Your task to perform on an android device: Set the phone to "Do not disturb". Image 0: 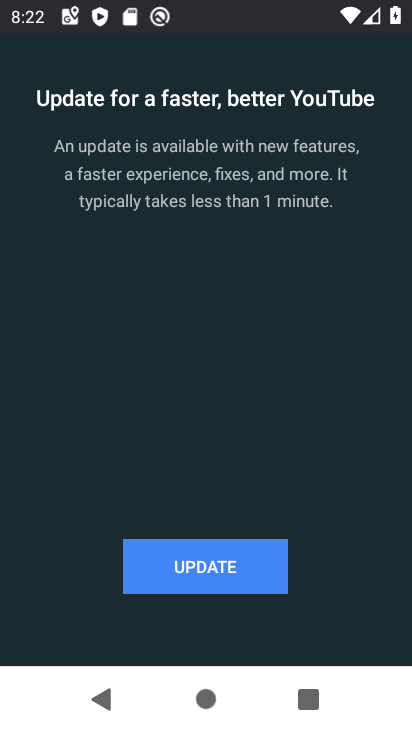
Step 0: press home button
Your task to perform on an android device: Set the phone to "Do not disturb". Image 1: 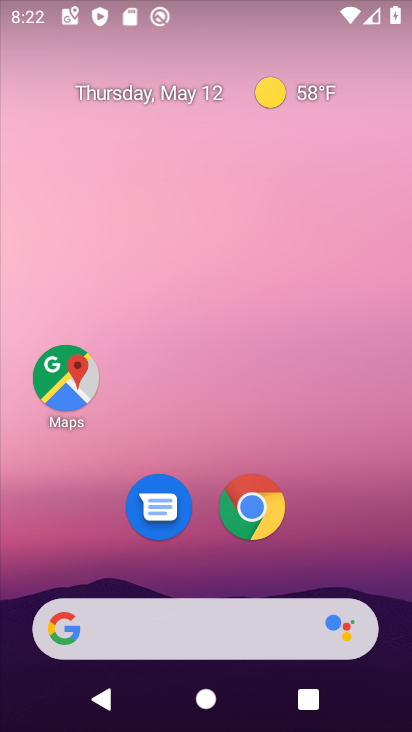
Step 1: drag from (213, 572) to (222, 260)
Your task to perform on an android device: Set the phone to "Do not disturb". Image 2: 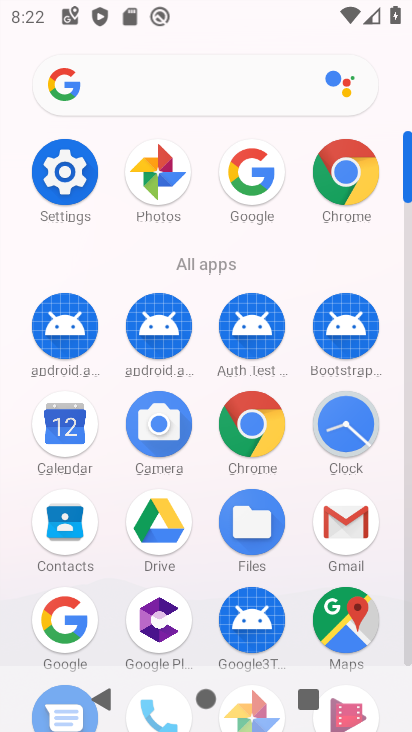
Step 2: click (54, 183)
Your task to perform on an android device: Set the phone to "Do not disturb". Image 3: 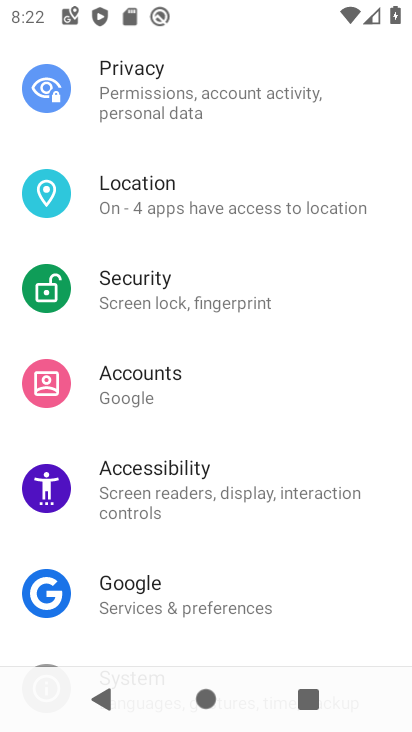
Step 3: drag from (245, 550) to (254, 594)
Your task to perform on an android device: Set the phone to "Do not disturb". Image 4: 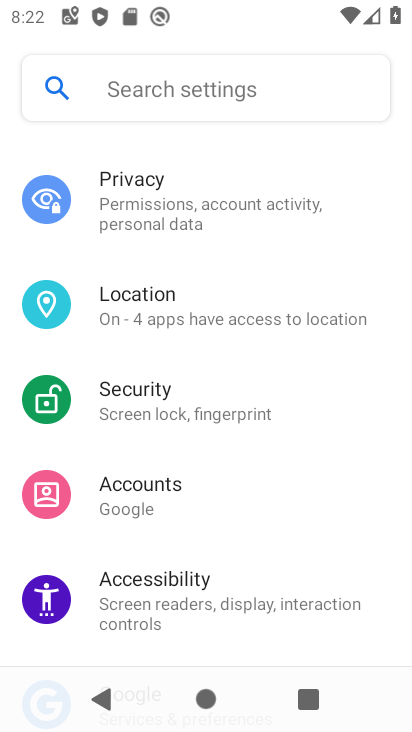
Step 4: drag from (237, 234) to (243, 507)
Your task to perform on an android device: Set the phone to "Do not disturb". Image 5: 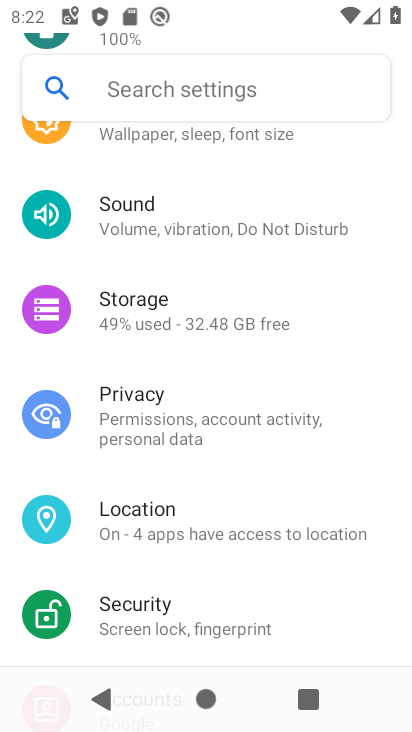
Step 5: click (167, 233)
Your task to perform on an android device: Set the phone to "Do not disturb". Image 6: 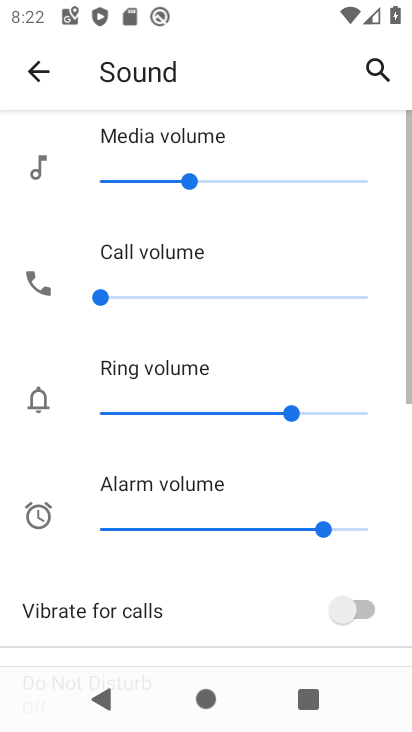
Step 6: drag from (179, 629) to (210, 294)
Your task to perform on an android device: Set the phone to "Do not disturb". Image 7: 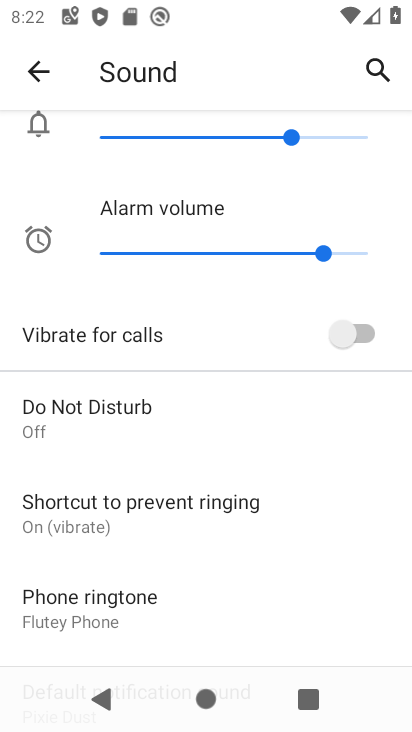
Step 7: click (101, 426)
Your task to perform on an android device: Set the phone to "Do not disturb". Image 8: 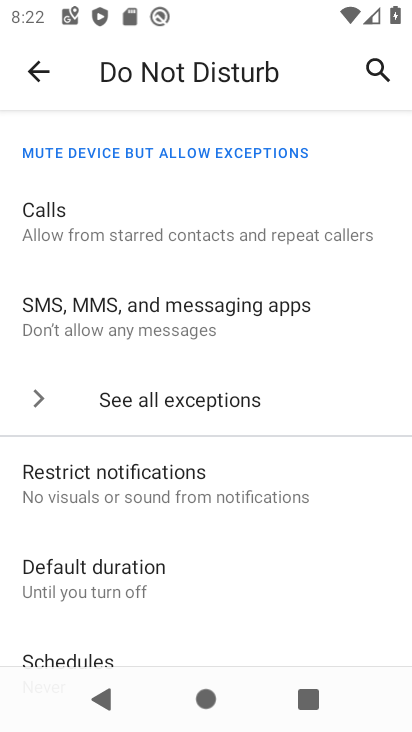
Step 8: drag from (203, 621) to (226, 375)
Your task to perform on an android device: Set the phone to "Do not disturb". Image 9: 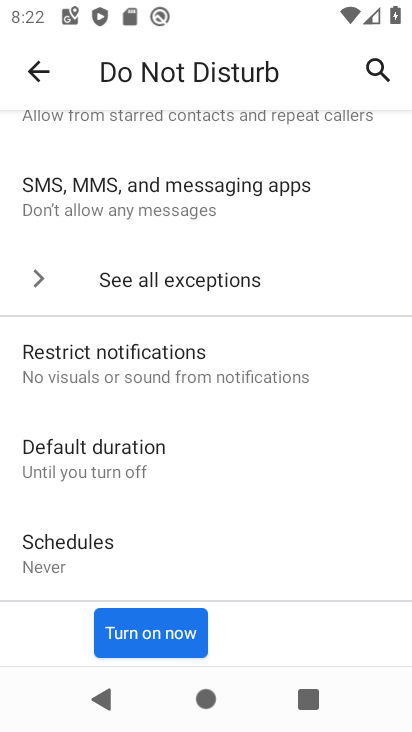
Step 9: click (161, 625)
Your task to perform on an android device: Set the phone to "Do not disturb". Image 10: 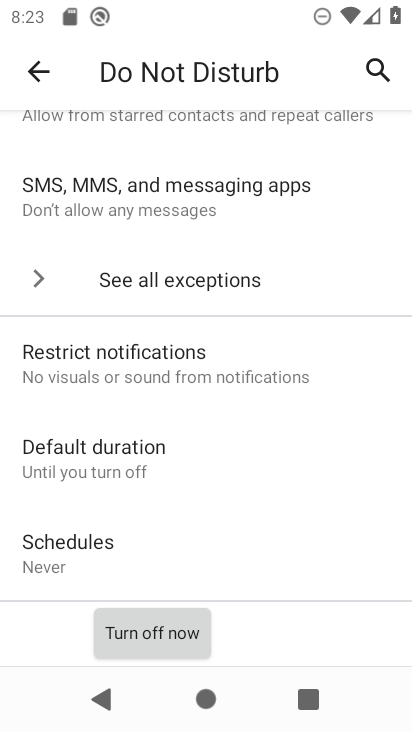
Step 10: task complete